Your task to perform on an android device: Open Yahoo.com Image 0: 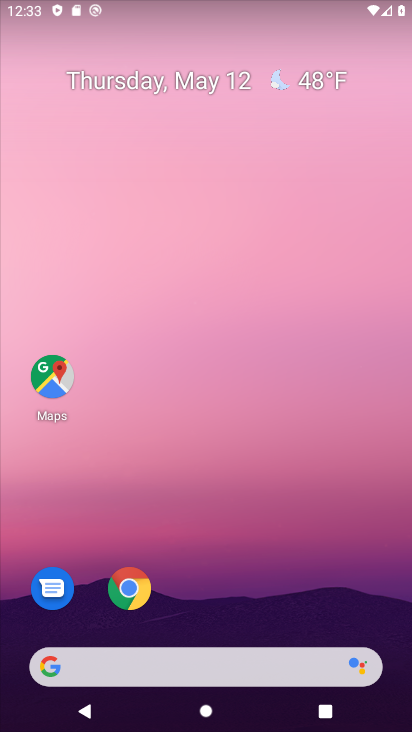
Step 0: drag from (301, 588) to (102, 7)
Your task to perform on an android device: Open Yahoo.com Image 1: 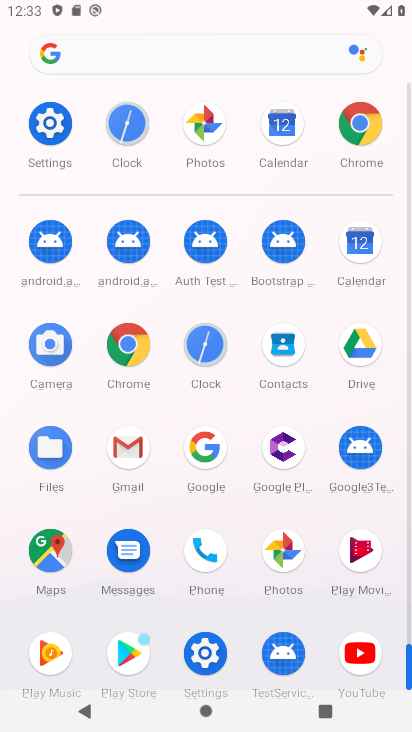
Step 1: click (354, 142)
Your task to perform on an android device: Open Yahoo.com Image 2: 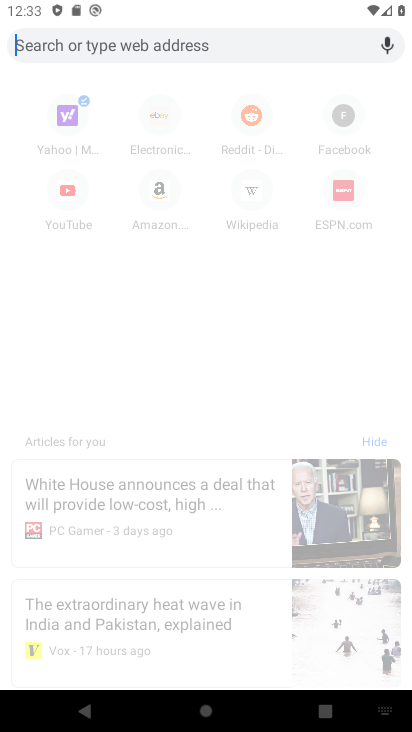
Step 2: click (75, 114)
Your task to perform on an android device: Open Yahoo.com Image 3: 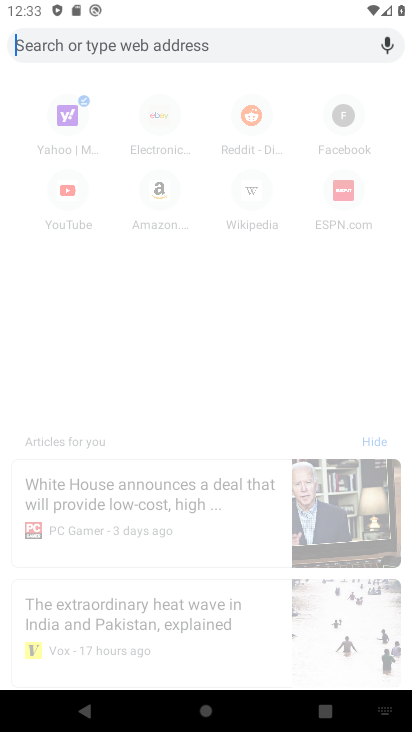
Step 3: click (75, 114)
Your task to perform on an android device: Open Yahoo.com Image 4: 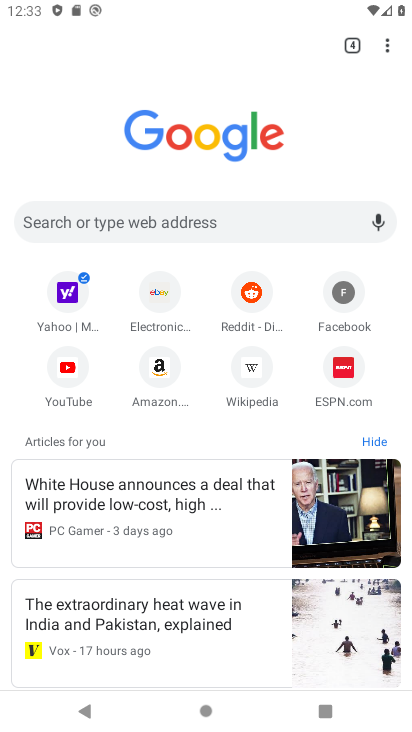
Step 4: click (75, 114)
Your task to perform on an android device: Open Yahoo.com Image 5: 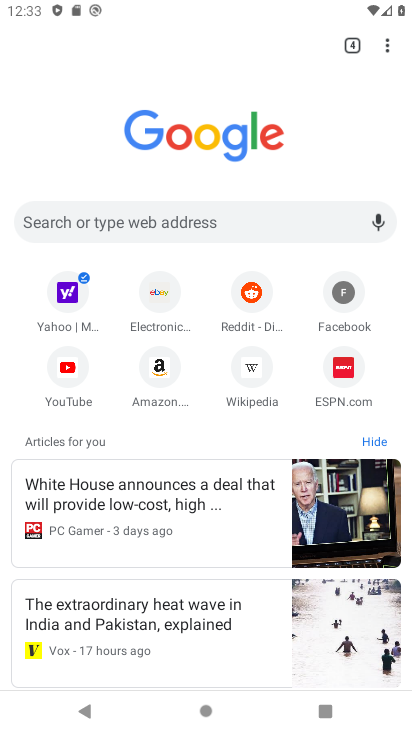
Step 5: click (65, 302)
Your task to perform on an android device: Open Yahoo.com Image 6: 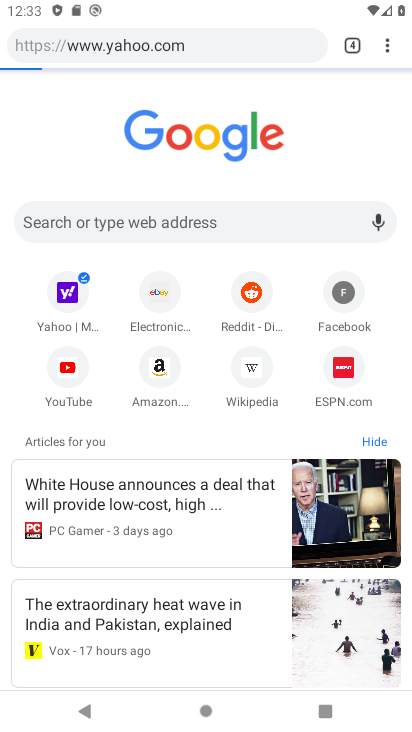
Step 6: click (65, 302)
Your task to perform on an android device: Open Yahoo.com Image 7: 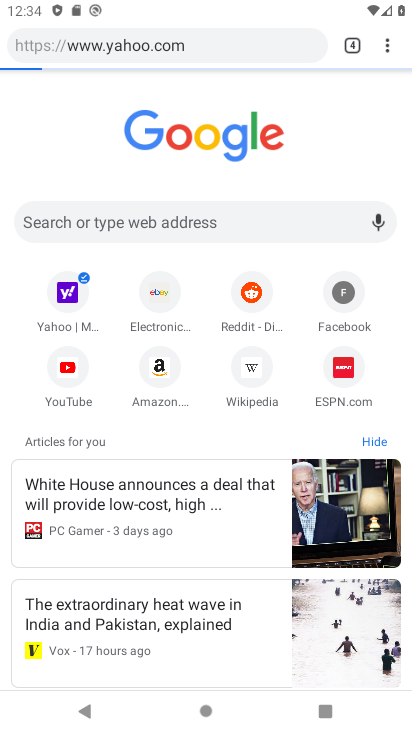
Step 7: click (63, 300)
Your task to perform on an android device: Open Yahoo.com Image 8: 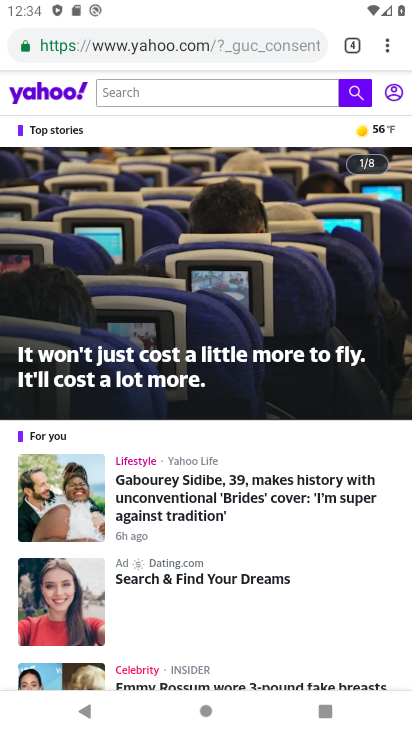
Step 8: task complete